Your task to perform on an android device: Search for rayovac triple a on newegg, select the first entry, add it to the cart, then select checkout. Image 0: 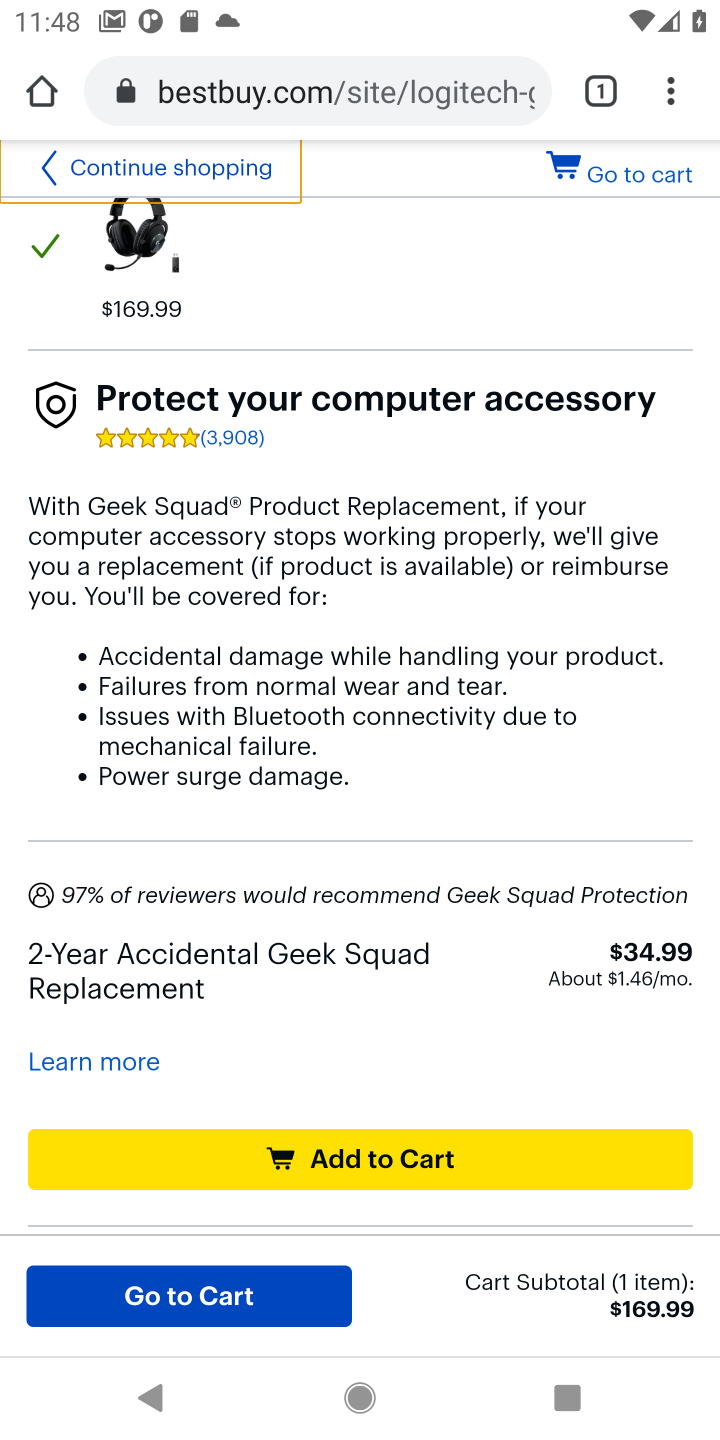
Step 0: task complete